Your task to perform on an android device: turn on bluetooth scan Image 0: 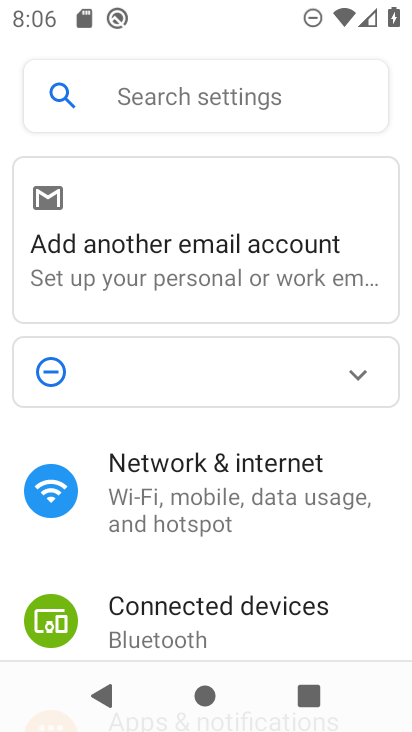
Step 0: drag from (226, 638) to (197, 263)
Your task to perform on an android device: turn on bluetooth scan Image 1: 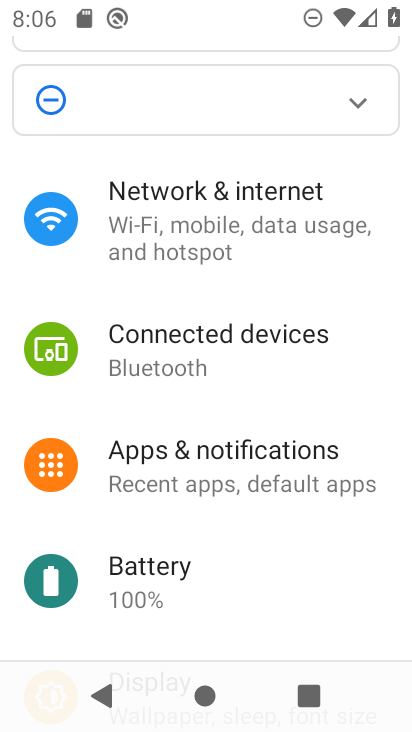
Step 1: drag from (195, 608) to (195, 270)
Your task to perform on an android device: turn on bluetooth scan Image 2: 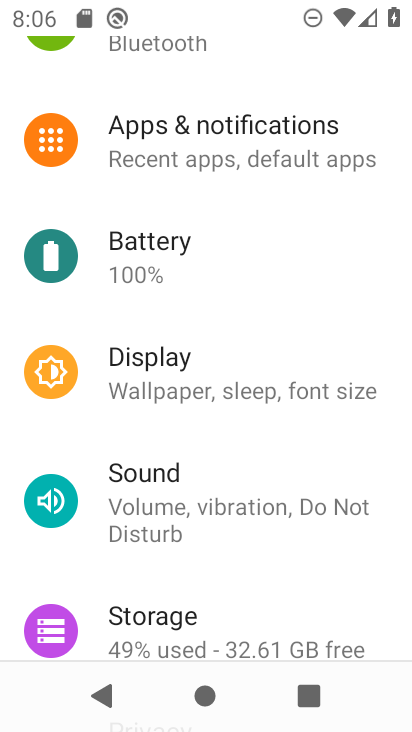
Step 2: drag from (175, 543) to (175, 242)
Your task to perform on an android device: turn on bluetooth scan Image 3: 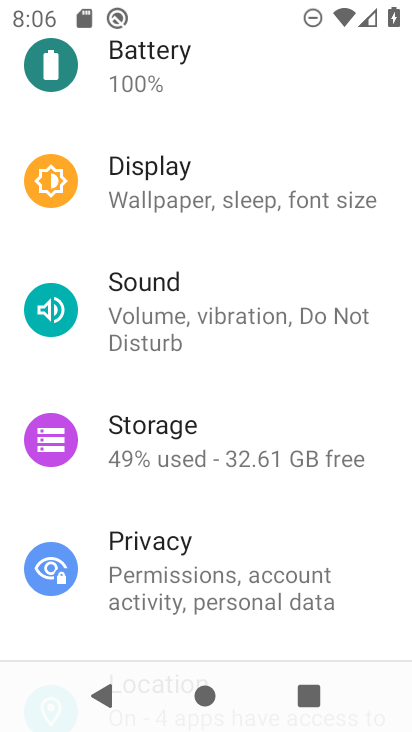
Step 3: drag from (171, 618) to (169, 316)
Your task to perform on an android device: turn on bluetooth scan Image 4: 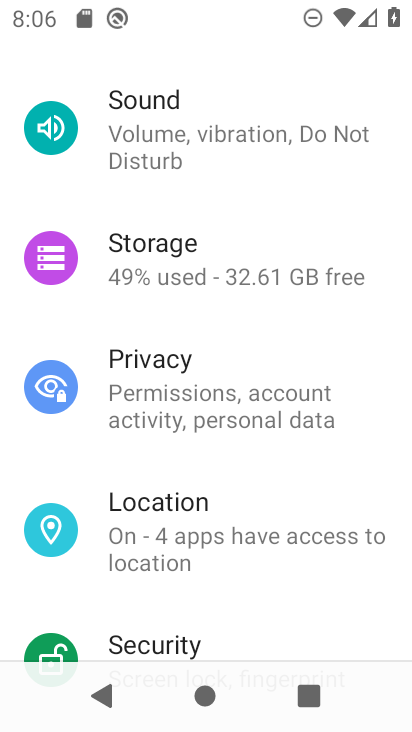
Step 4: click (163, 545)
Your task to perform on an android device: turn on bluetooth scan Image 5: 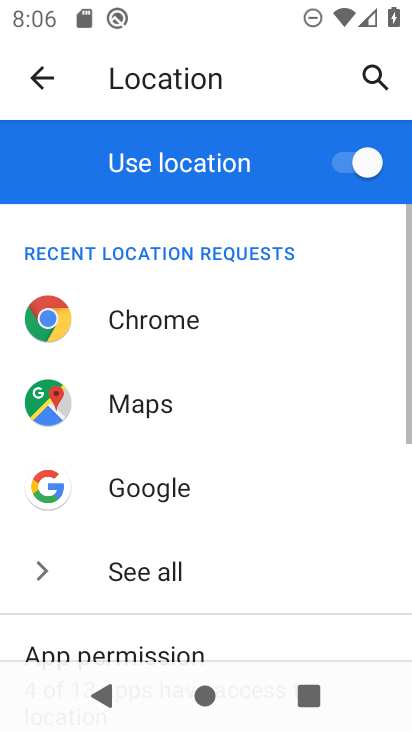
Step 5: drag from (203, 572) to (205, 263)
Your task to perform on an android device: turn on bluetooth scan Image 6: 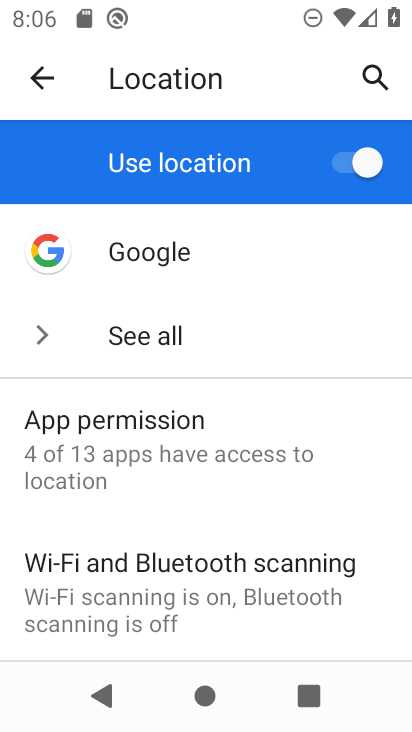
Step 6: click (222, 593)
Your task to perform on an android device: turn on bluetooth scan Image 7: 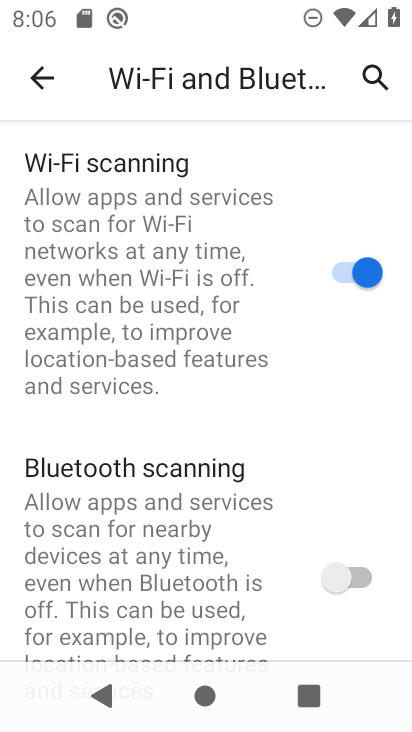
Step 7: click (362, 570)
Your task to perform on an android device: turn on bluetooth scan Image 8: 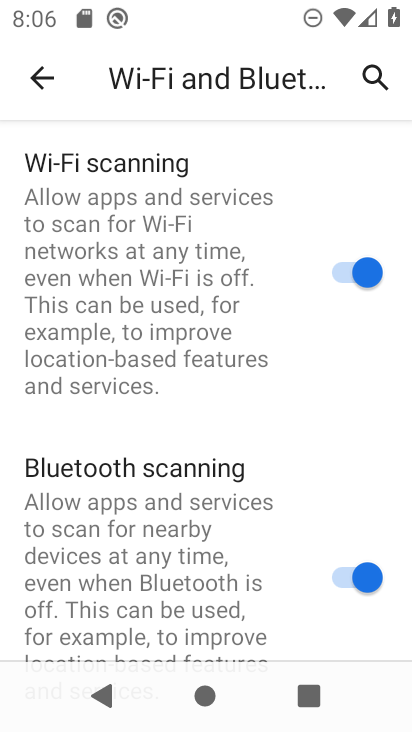
Step 8: task complete